Your task to perform on an android device: open device folders in google photos Image 0: 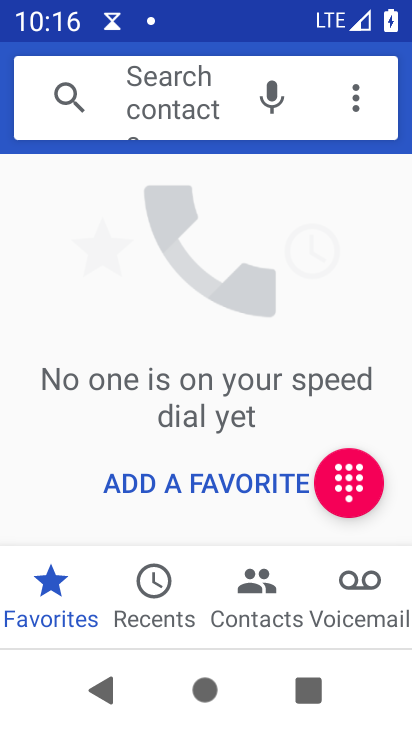
Step 0: press home button
Your task to perform on an android device: open device folders in google photos Image 1: 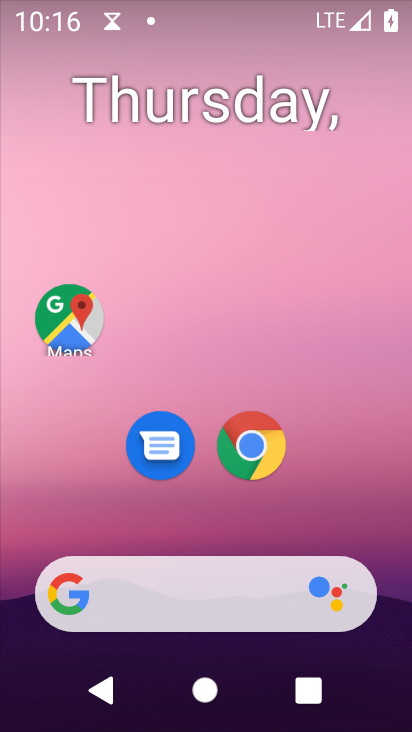
Step 1: drag from (372, 529) to (308, 240)
Your task to perform on an android device: open device folders in google photos Image 2: 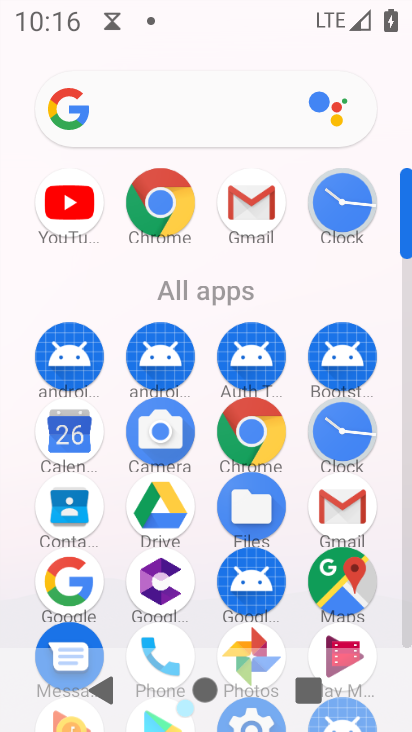
Step 2: click (407, 634)
Your task to perform on an android device: open device folders in google photos Image 3: 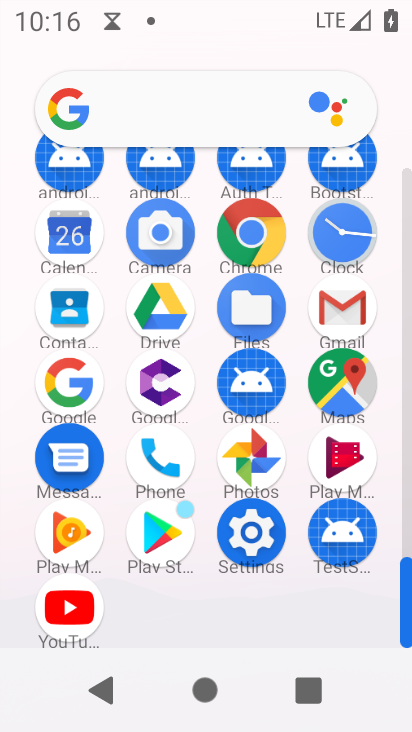
Step 3: click (256, 443)
Your task to perform on an android device: open device folders in google photos Image 4: 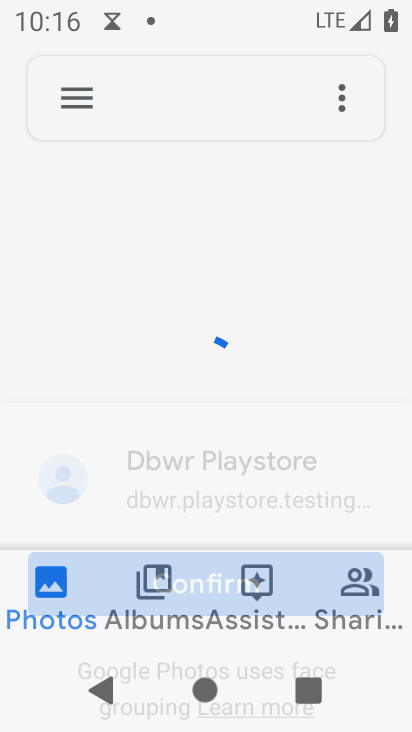
Step 4: click (78, 109)
Your task to perform on an android device: open device folders in google photos Image 5: 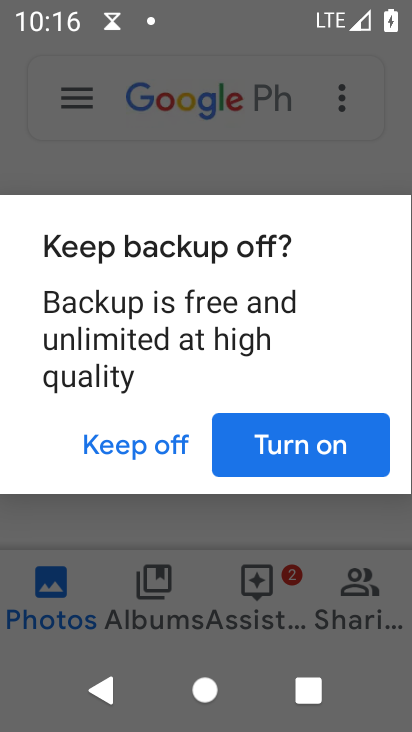
Step 5: click (251, 449)
Your task to perform on an android device: open device folders in google photos Image 6: 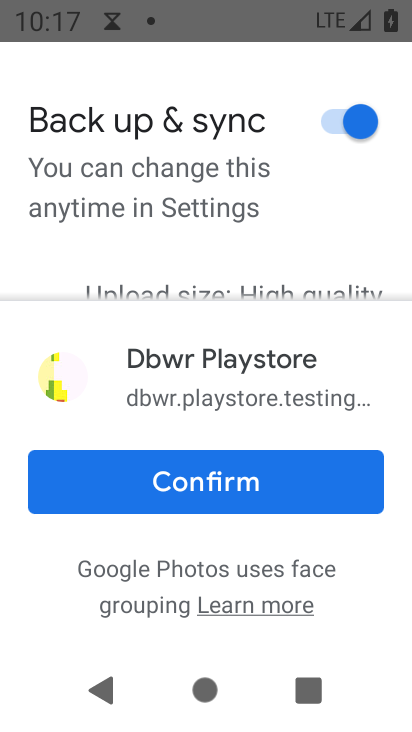
Step 6: click (183, 471)
Your task to perform on an android device: open device folders in google photos Image 7: 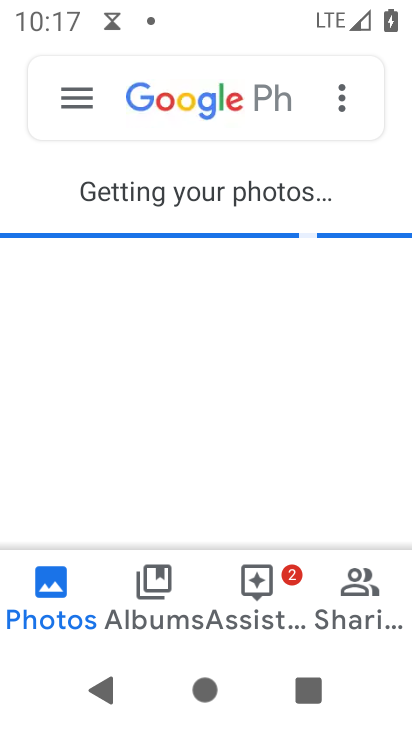
Step 7: click (87, 115)
Your task to perform on an android device: open device folders in google photos Image 8: 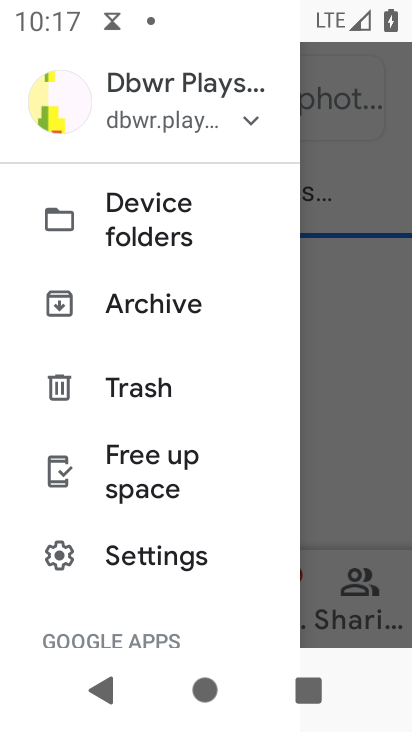
Step 8: click (155, 238)
Your task to perform on an android device: open device folders in google photos Image 9: 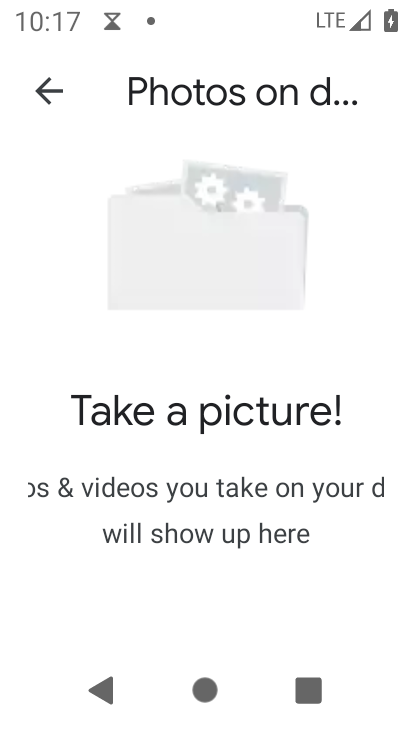
Step 9: task complete